Your task to perform on an android device: Search for "usb-a to usb-b" on walmart.com, select the first entry, add it to the cart, then select checkout. Image 0: 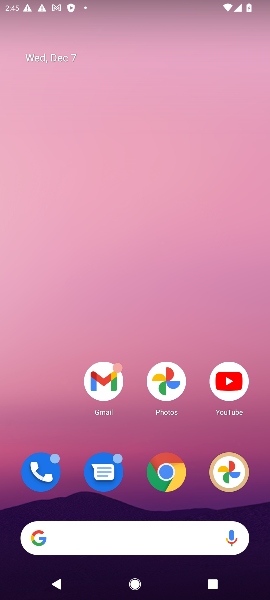
Step 0: drag from (153, 547) to (165, 177)
Your task to perform on an android device: Search for "usb-a to usb-b" on walmart.com, select the first entry, add it to the cart, then select checkout. Image 1: 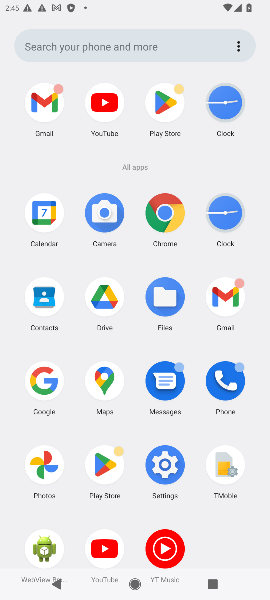
Step 1: click (44, 384)
Your task to perform on an android device: Search for "usb-a to usb-b" on walmart.com, select the first entry, add it to the cart, then select checkout. Image 2: 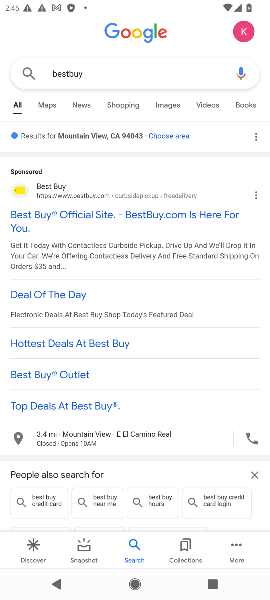
Step 2: click (77, 72)
Your task to perform on an android device: Search for "usb-a to usb-b" on walmart.com, select the first entry, add it to the cart, then select checkout. Image 3: 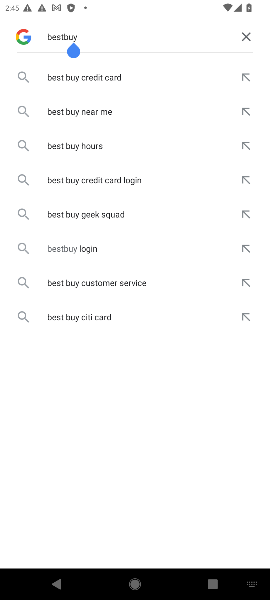
Step 3: click (250, 35)
Your task to perform on an android device: Search for "usb-a to usb-b" on walmart.com, select the first entry, add it to the cart, then select checkout. Image 4: 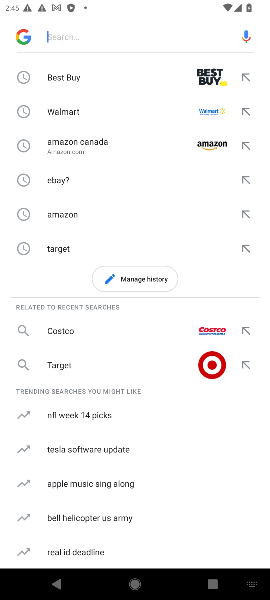
Step 4: click (66, 110)
Your task to perform on an android device: Search for "usb-a to usb-b" on walmart.com, select the first entry, add it to the cart, then select checkout. Image 5: 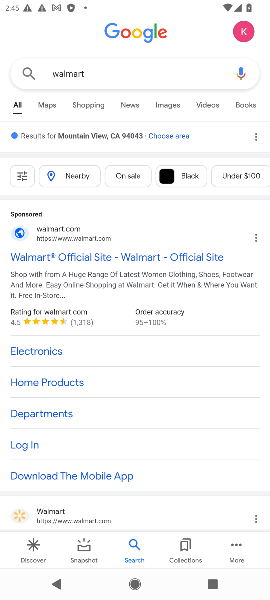
Step 5: click (93, 257)
Your task to perform on an android device: Search for "usb-a to usb-b" on walmart.com, select the first entry, add it to the cart, then select checkout. Image 6: 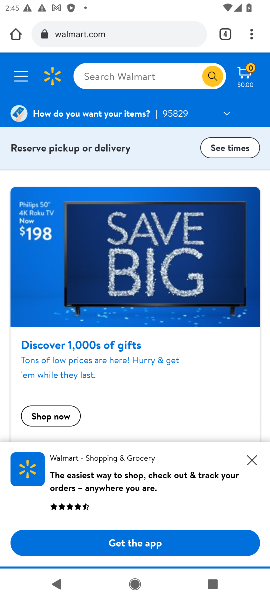
Step 6: click (100, 66)
Your task to perform on an android device: Search for "usb-a to usb-b" on walmart.com, select the first entry, add it to the cart, then select checkout. Image 7: 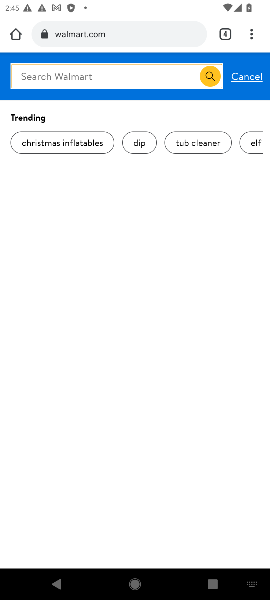
Step 7: type "usb-a to usb-b"
Your task to perform on an android device: Search for "usb-a to usb-b" on walmart.com, select the first entry, add it to the cart, then select checkout. Image 8: 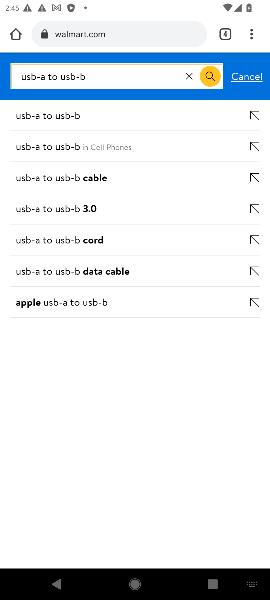
Step 8: click (69, 115)
Your task to perform on an android device: Search for "usb-a to usb-b" on walmart.com, select the first entry, add it to the cart, then select checkout. Image 9: 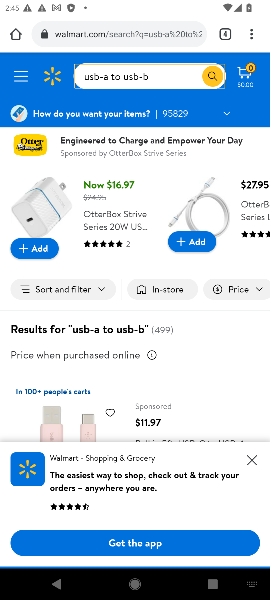
Step 9: drag from (204, 404) to (178, 140)
Your task to perform on an android device: Search for "usb-a to usb-b" on walmart.com, select the first entry, add it to the cart, then select checkout. Image 10: 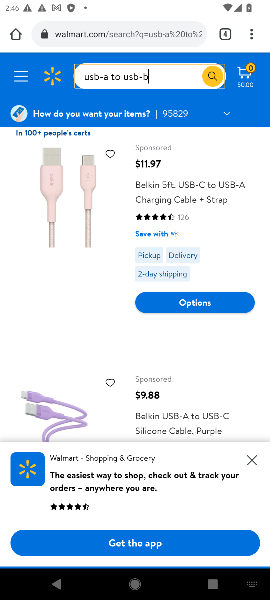
Step 10: click (152, 196)
Your task to perform on an android device: Search for "usb-a to usb-b" on walmart.com, select the first entry, add it to the cart, then select checkout. Image 11: 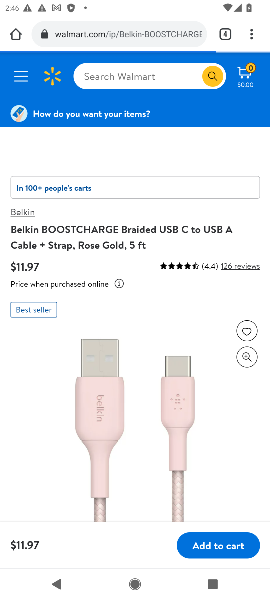
Step 11: drag from (130, 461) to (110, 211)
Your task to perform on an android device: Search for "usb-a to usb-b" on walmart.com, select the first entry, add it to the cart, then select checkout. Image 12: 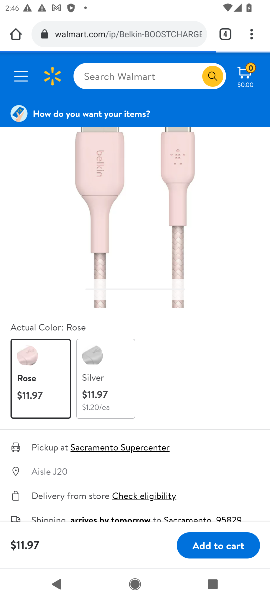
Step 12: click (229, 544)
Your task to perform on an android device: Search for "usb-a to usb-b" on walmart.com, select the first entry, add it to the cart, then select checkout. Image 13: 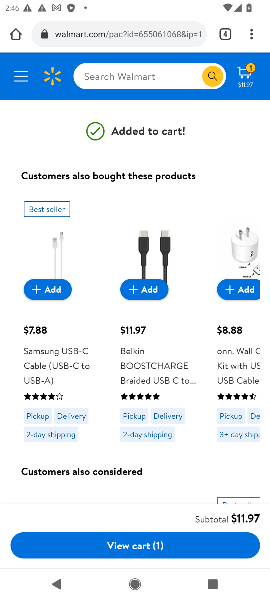
Step 13: click (241, 77)
Your task to perform on an android device: Search for "usb-a to usb-b" on walmart.com, select the first entry, add it to the cart, then select checkout. Image 14: 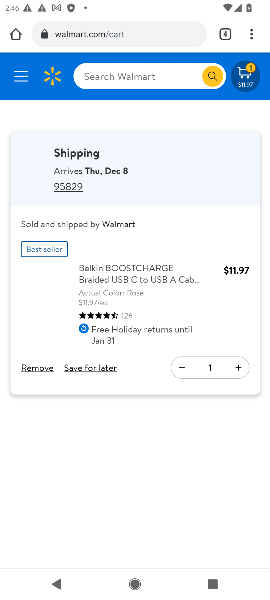
Step 14: drag from (160, 408) to (146, 201)
Your task to perform on an android device: Search for "usb-a to usb-b" on walmart.com, select the first entry, add it to the cart, then select checkout. Image 15: 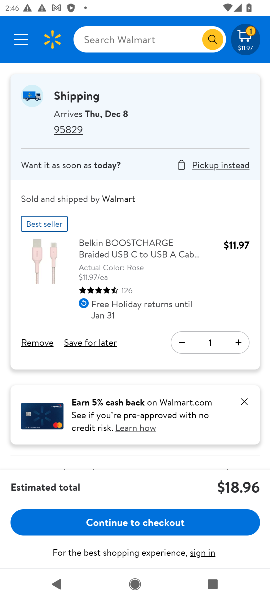
Step 15: click (174, 520)
Your task to perform on an android device: Search for "usb-a to usb-b" on walmart.com, select the first entry, add it to the cart, then select checkout. Image 16: 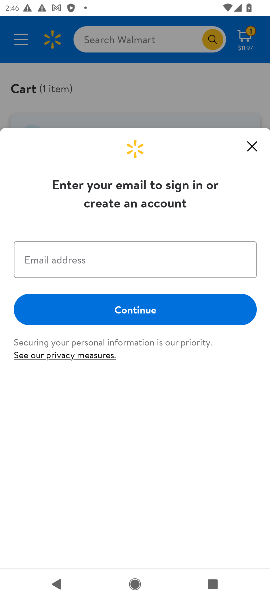
Step 16: task complete